Your task to perform on an android device: Add "dell xps" to the cart on walmart.com, then select checkout. Image 0: 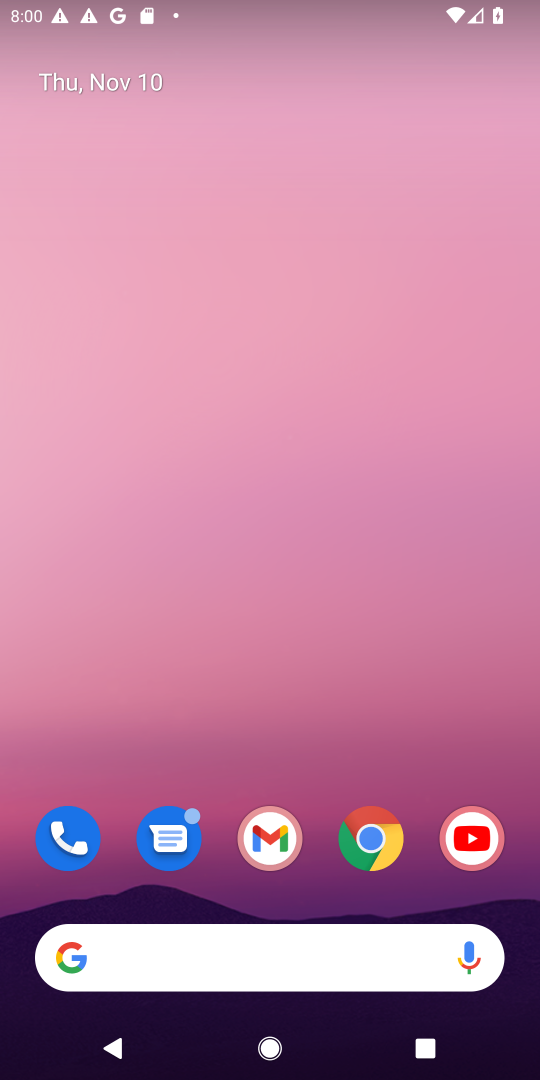
Step 0: click (358, 101)
Your task to perform on an android device: Add "dell xps" to the cart on walmart.com, then select checkout. Image 1: 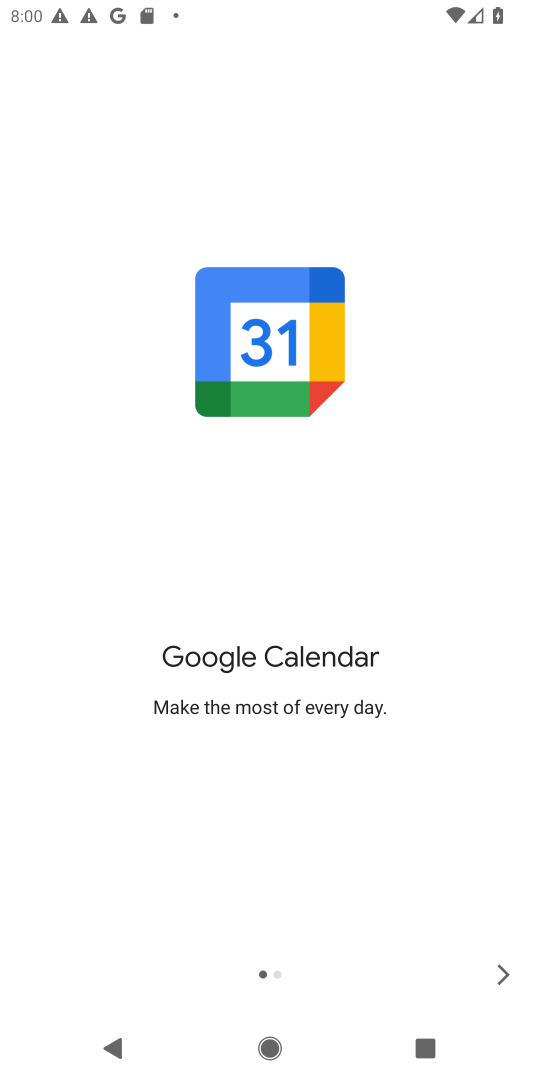
Step 1: press home button
Your task to perform on an android device: Add "dell xps" to the cart on walmart.com, then select checkout. Image 2: 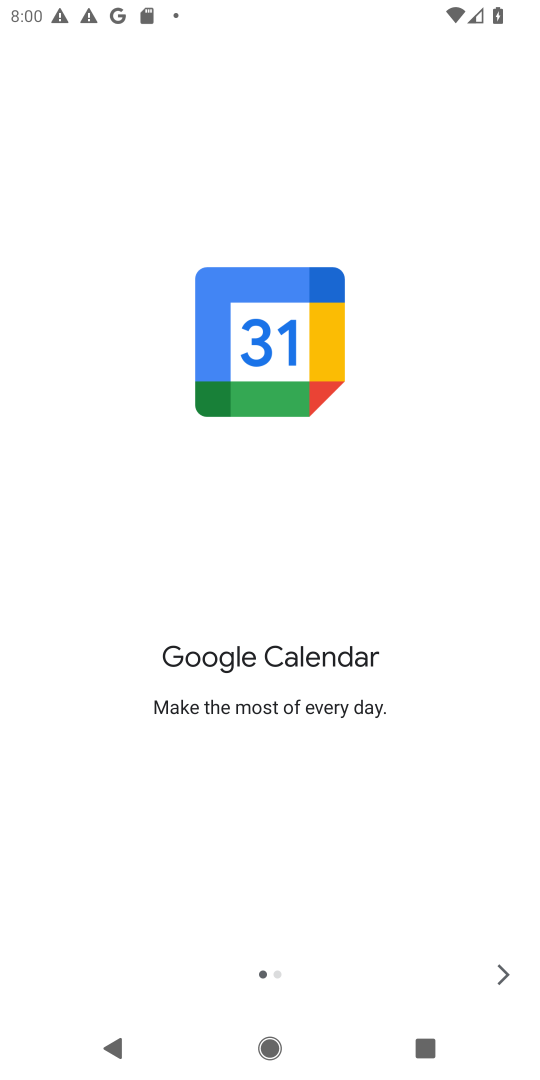
Step 2: press home button
Your task to perform on an android device: Add "dell xps" to the cart on walmart.com, then select checkout. Image 3: 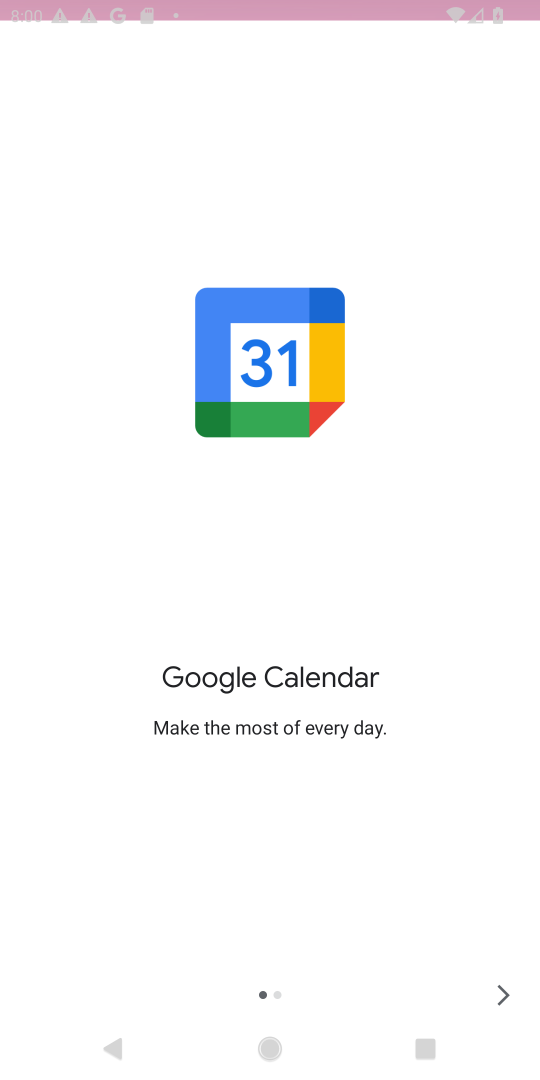
Step 3: press home button
Your task to perform on an android device: Add "dell xps" to the cart on walmart.com, then select checkout. Image 4: 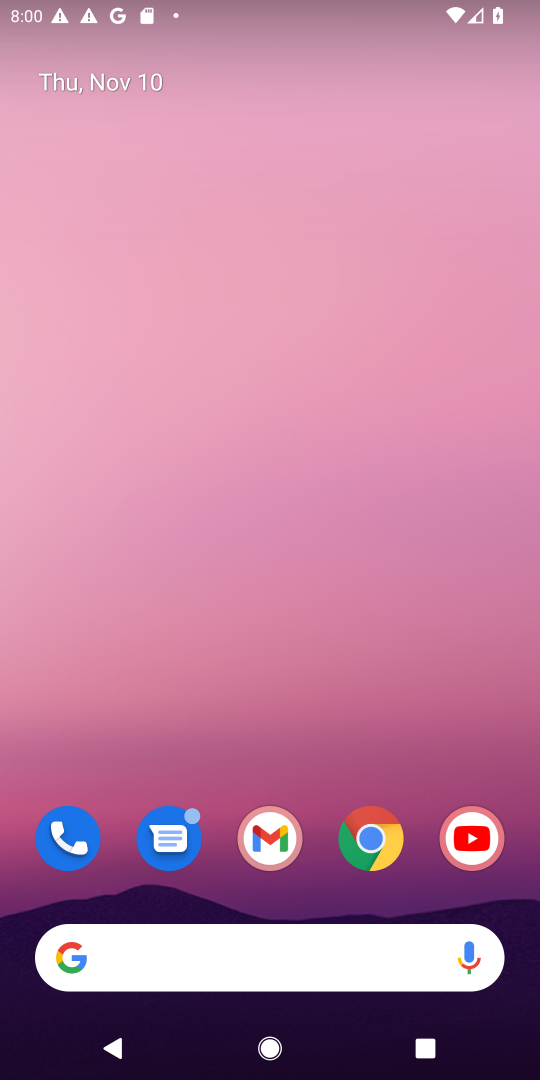
Step 4: drag from (311, 895) to (338, 42)
Your task to perform on an android device: Add "dell xps" to the cart on walmart.com, then select checkout. Image 5: 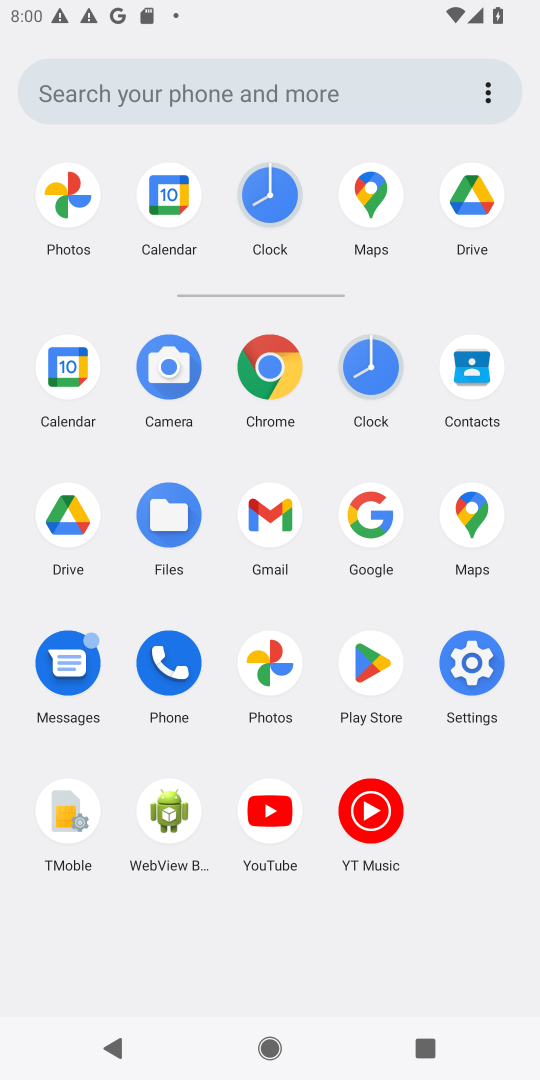
Step 5: click (265, 369)
Your task to perform on an android device: Add "dell xps" to the cart on walmart.com, then select checkout. Image 6: 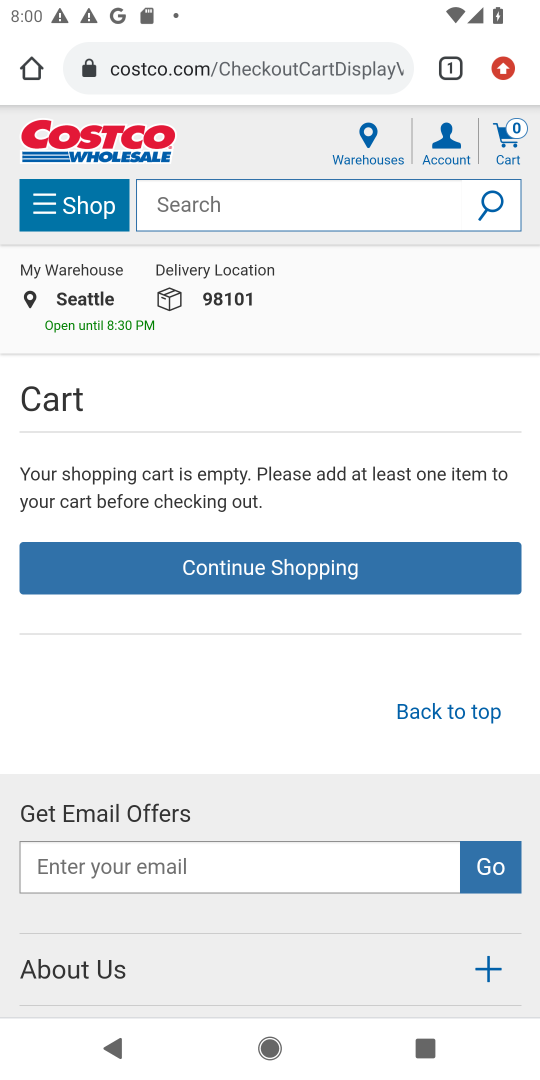
Step 6: click (291, 57)
Your task to perform on an android device: Add "dell xps" to the cart on walmart.com, then select checkout. Image 7: 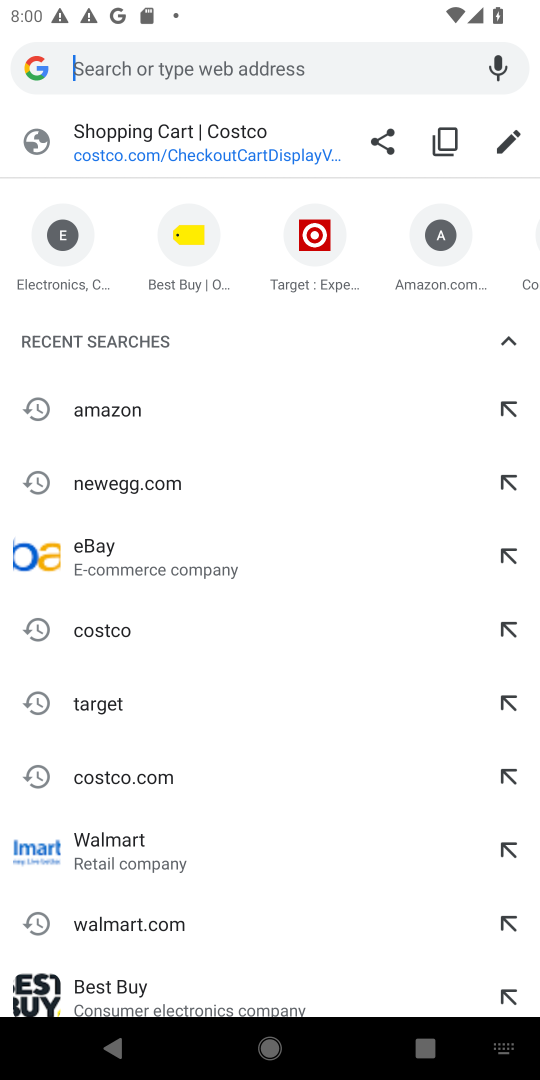
Step 7: type "walmart.com"
Your task to perform on an android device: Add "dell xps" to the cart on walmart.com, then select checkout. Image 8: 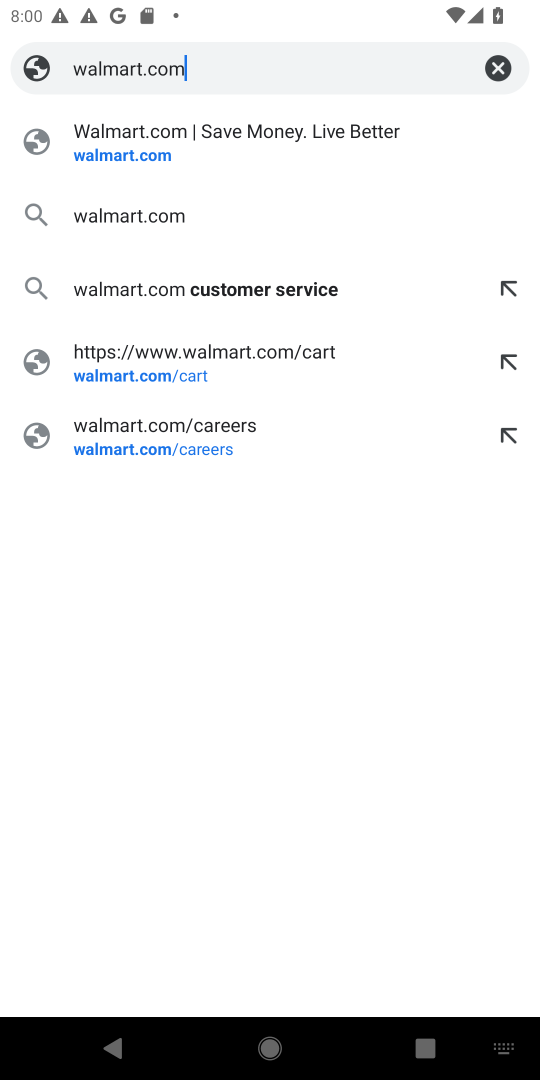
Step 8: press enter
Your task to perform on an android device: Add "dell xps" to the cart on walmart.com, then select checkout. Image 9: 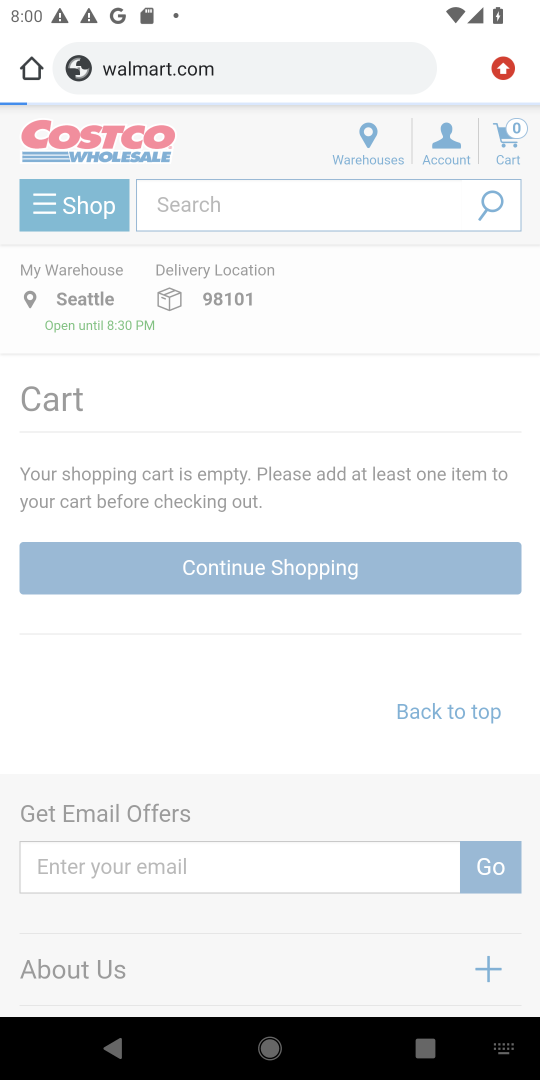
Step 9: press enter
Your task to perform on an android device: Add "dell xps" to the cart on walmart.com, then select checkout. Image 10: 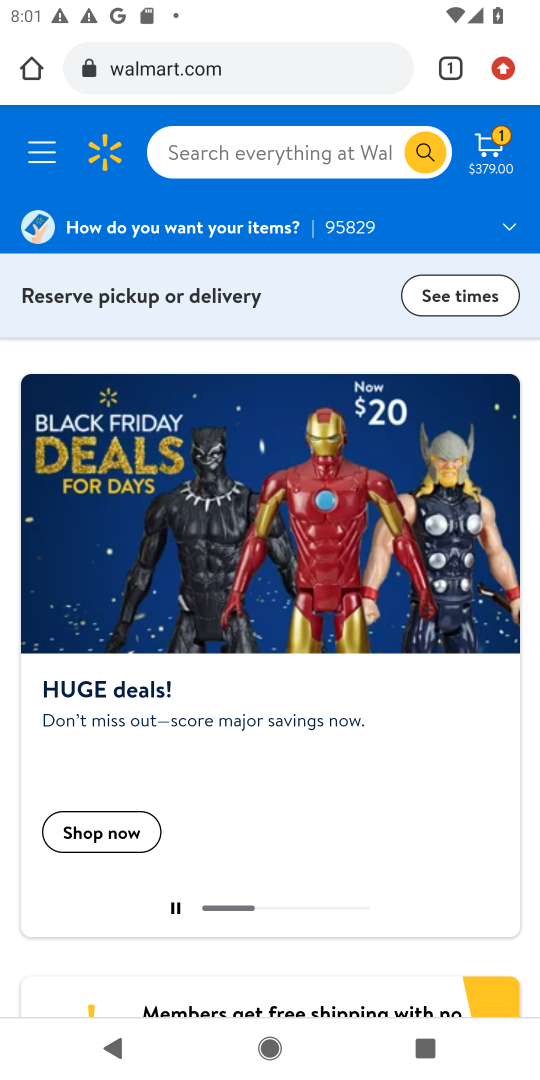
Step 10: click (327, 153)
Your task to perform on an android device: Add "dell xps" to the cart on walmart.com, then select checkout. Image 11: 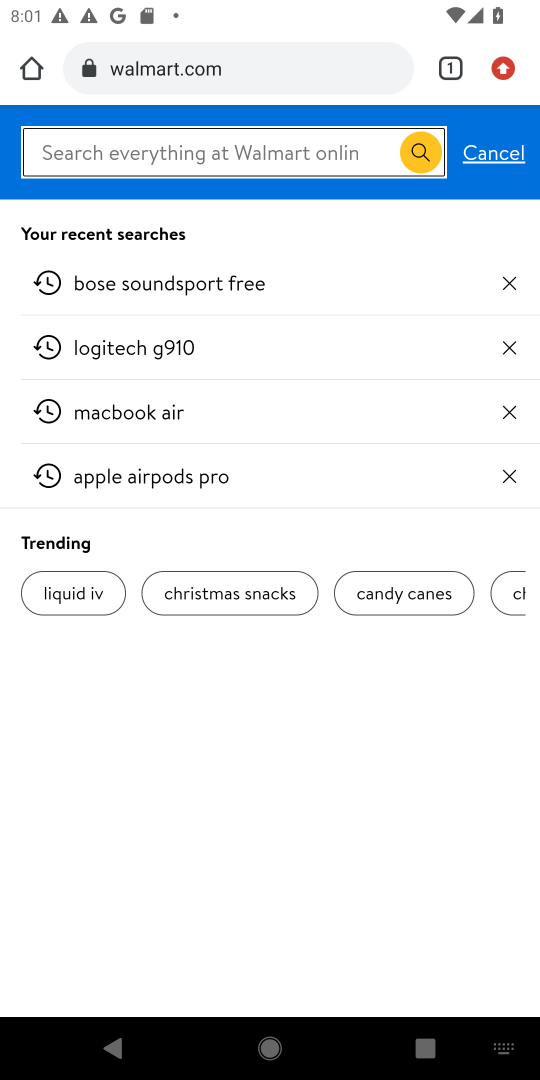
Step 11: type "dell xps"
Your task to perform on an android device: Add "dell xps" to the cart on walmart.com, then select checkout. Image 12: 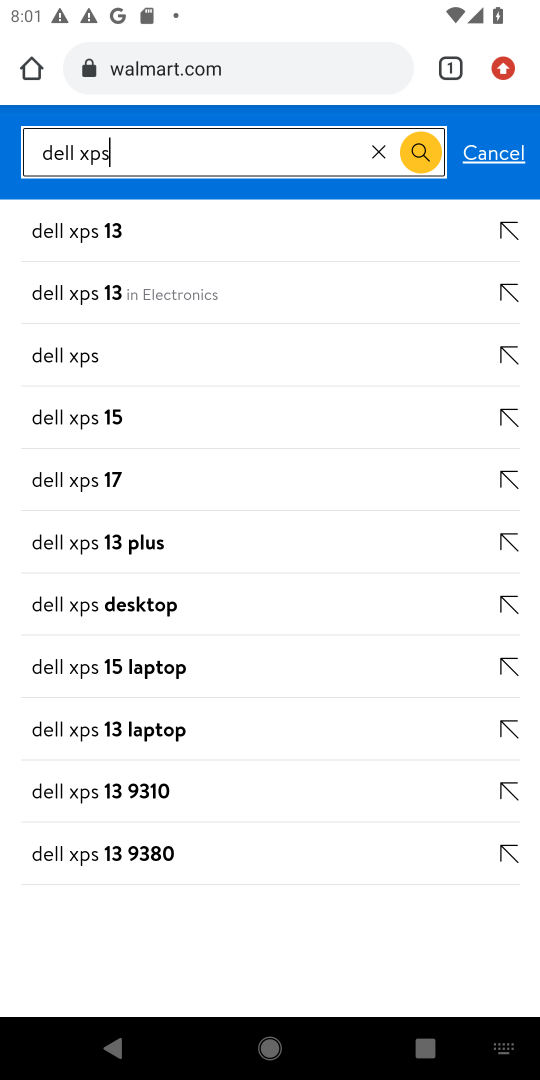
Step 12: press enter
Your task to perform on an android device: Add "dell xps" to the cart on walmart.com, then select checkout. Image 13: 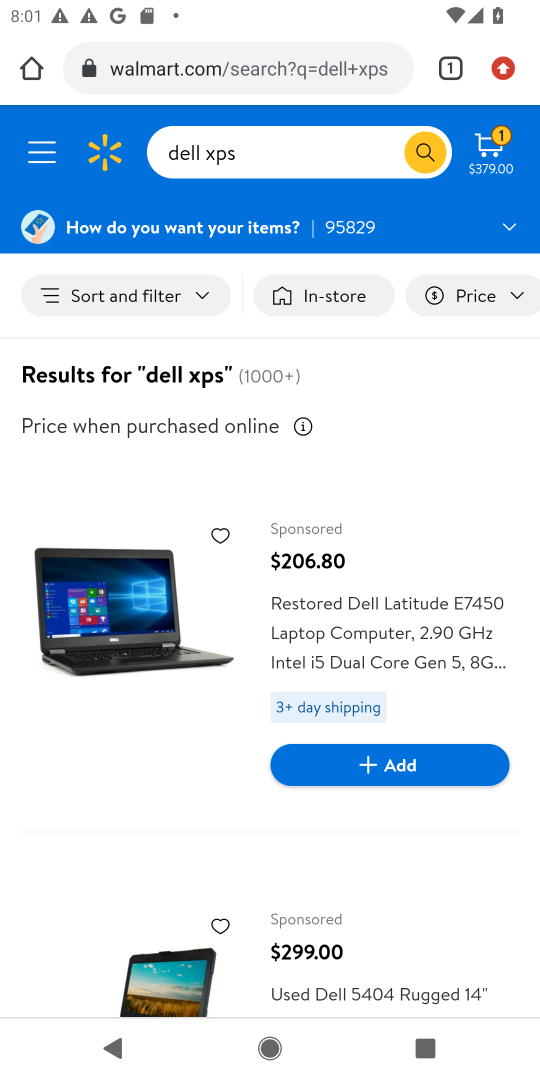
Step 13: drag from (370, 853) to (395, 104)
Your task to perform on an android device: Add "dell xps" to the cart on walmart.com, then select checkout. Image 14: 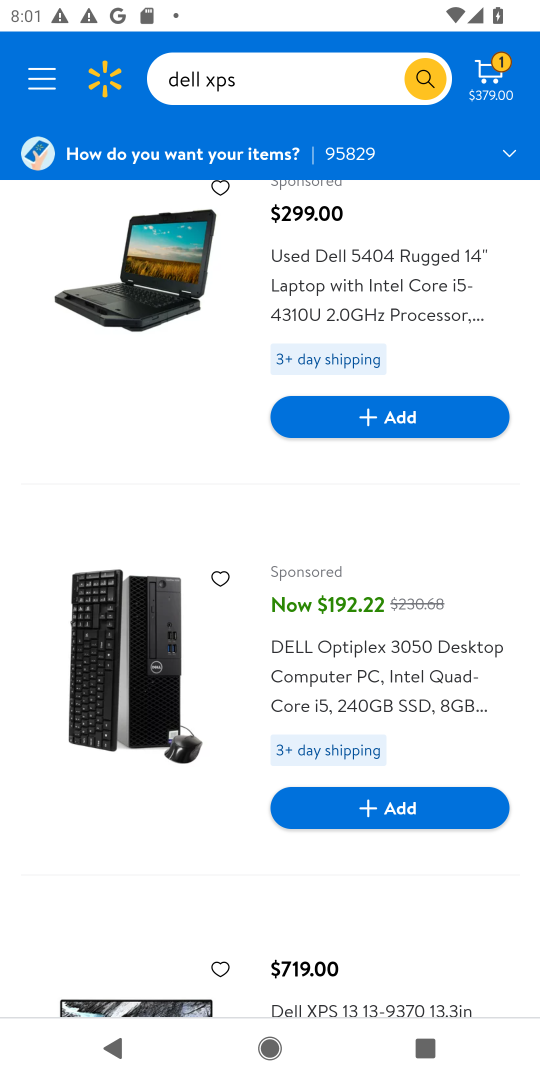
Step 14: drag from (369, 728) to (370, 267)
Your task to perform on an android device: Add "dell xps" to the cart on walmart.com, then select checkout. Image 15: 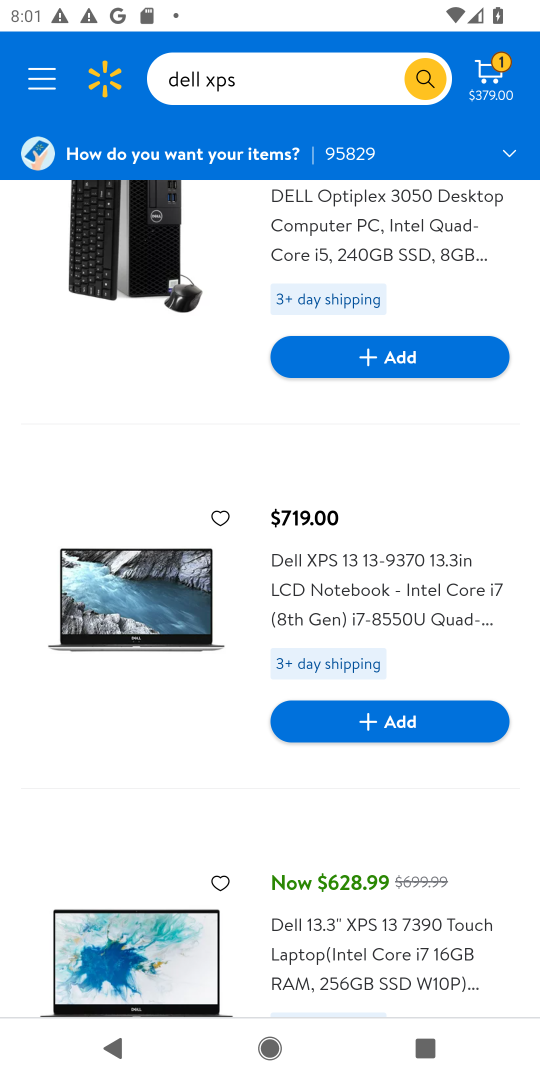
Step 15: drag from (384, 857) to (383, 1057)
Your task to perform on an android device: Add "dell xps" to the cart on walmart.com, then select checkout. Image 16: 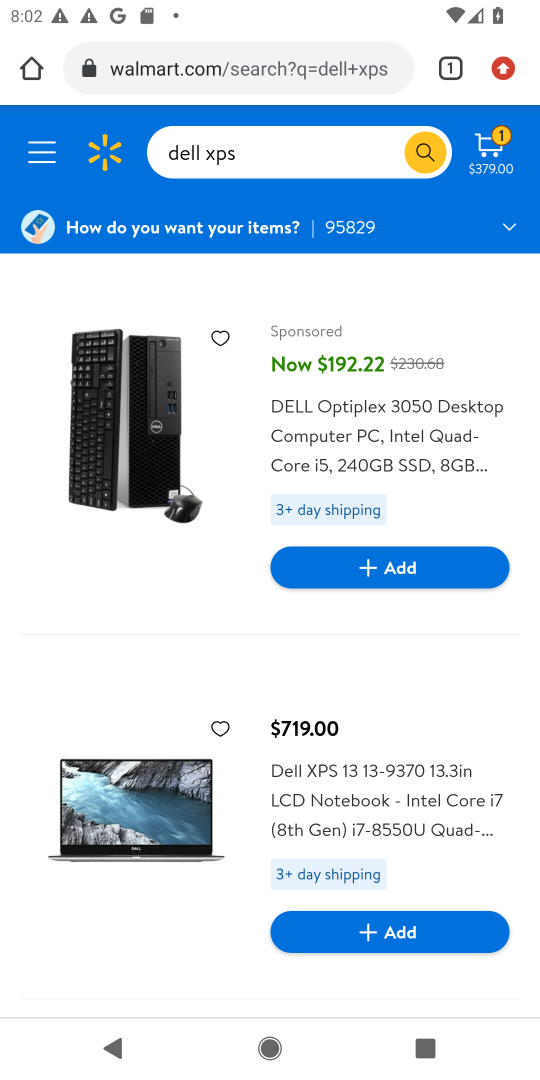
Step 16: click (392, 936)
Your task to perform on an android device: Add "dell xps" to the cart on walmart.com, then select checkout. Image 17: 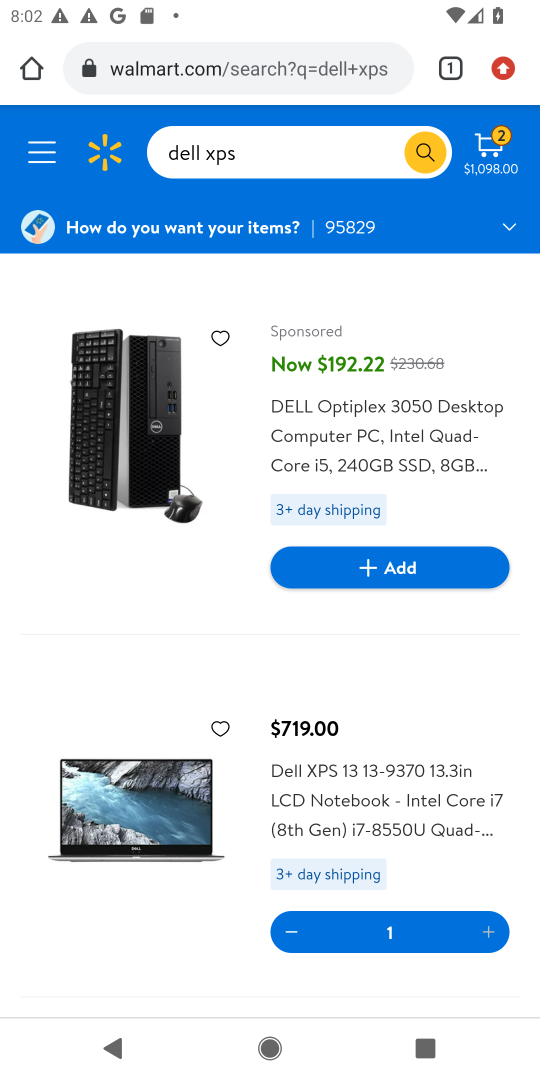
Step 17: click (487, 151)
Your task to perform on an android device: Add "dell xps" to the cart on walmart.com, then select checkout. Image 18: 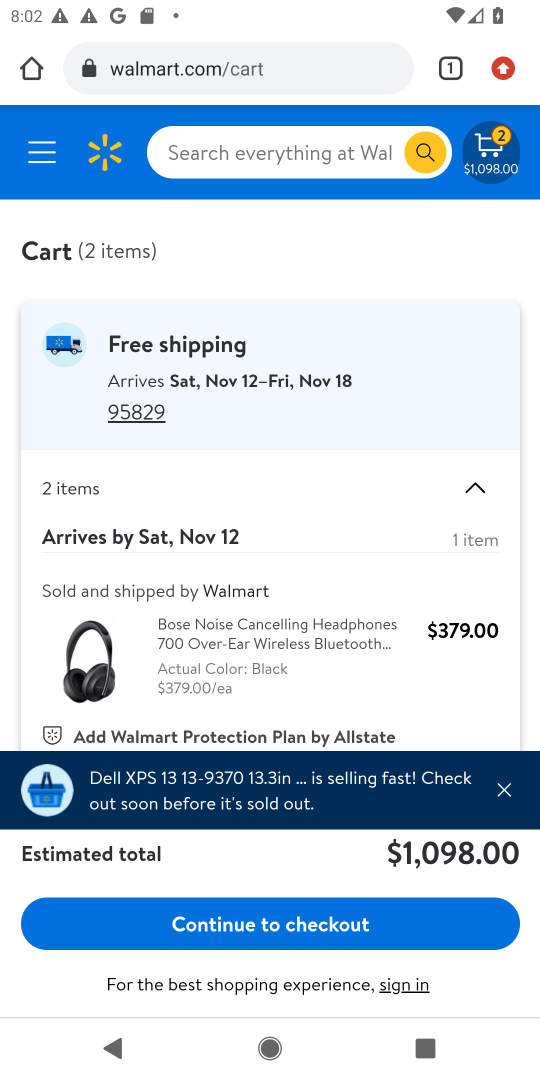
Step 18: click (333, 918)
Your task to perform on an android device: Add "dell xps" to the cart on walmart.com, then select checkout. Image 19: 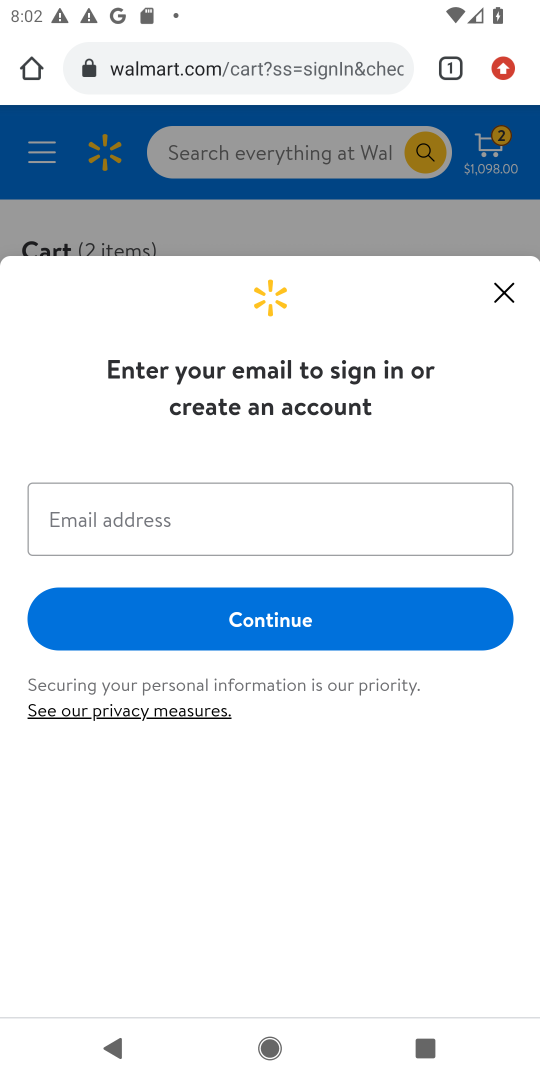
Step 19: task complete